Your task to perform on an android device: turn off improve location accuracy Image 0: 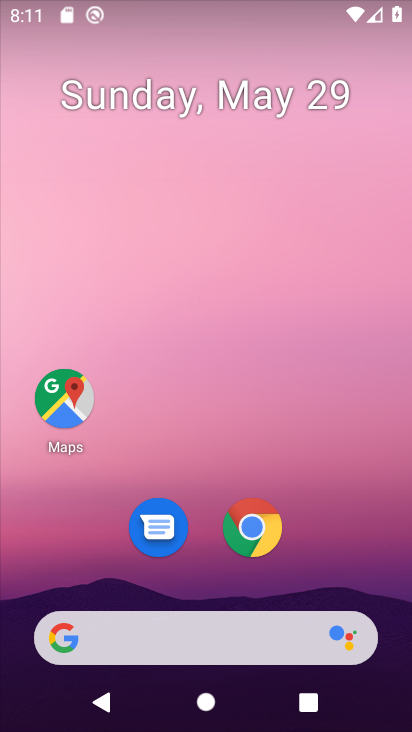
Step 0: drag from (212, 575) to (189, 25)
Your task to perform on an android device: turn off improve location accuracy Image 1: 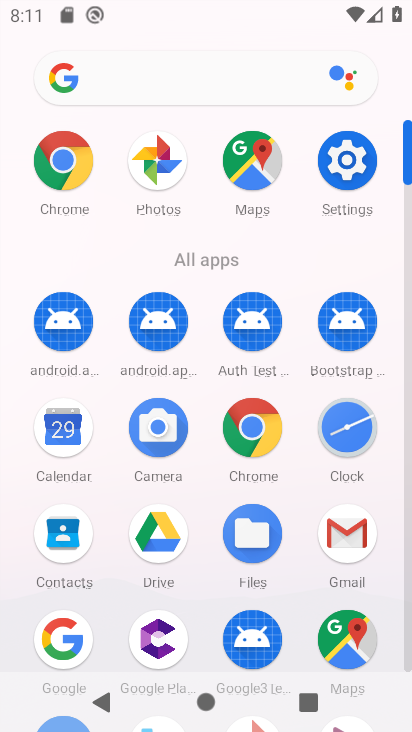
Step 1: click (342, 161)
Your task to perform on an android device: turn off improve location accuracy Image 2: 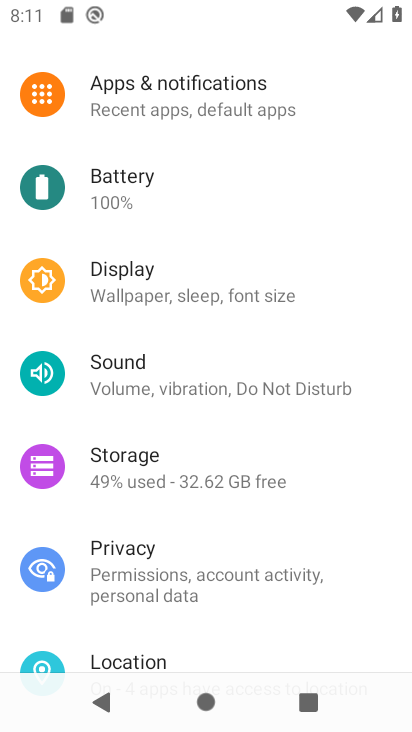
Step 2: click (184, 648)
Your task to perform on an android device: turn off improve location accuracy Image 3: 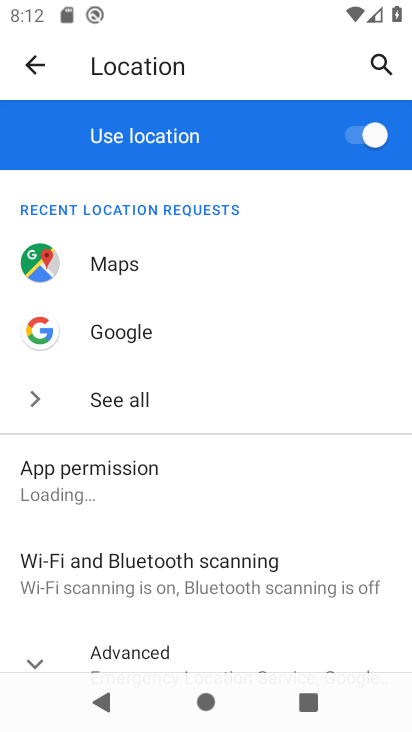
Step 3: click (63, 654)
Your task to perform on an android device: turn off improve location accuracy Image 4: 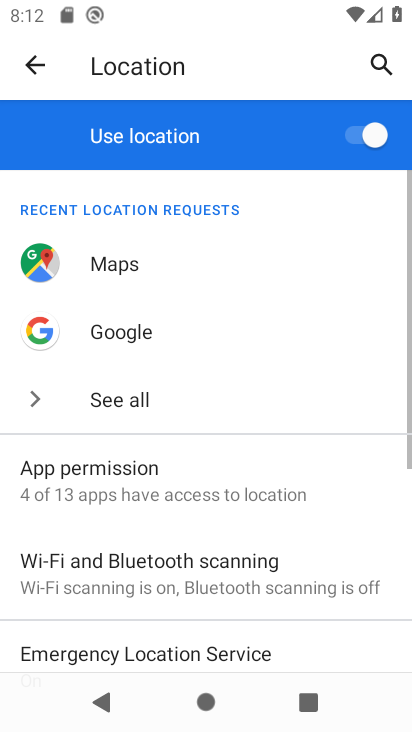
Step 4: drag from (158, 608) to (155, 106)
Your task to perform on an android device: turn off improve location accuracy Image 5: 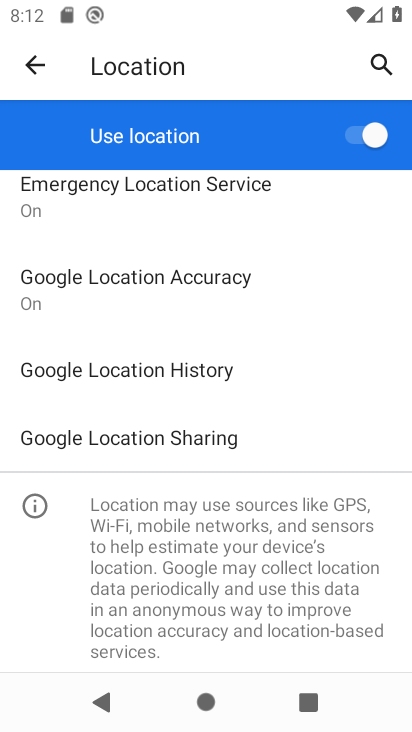
Step 5: click (177, 292)
Your task to perform on an android device: turn off improve location accuracy Image 6: 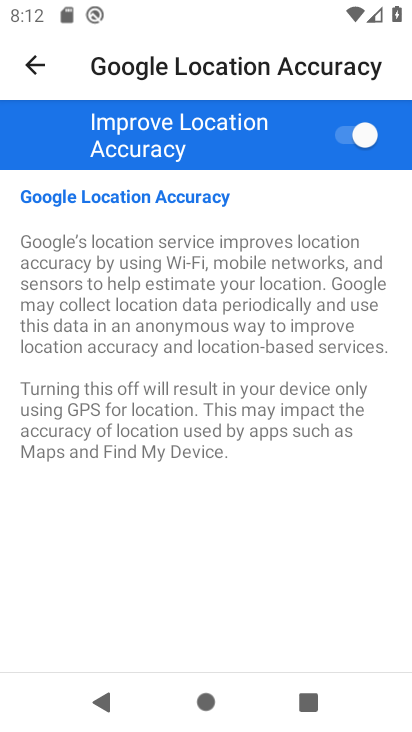
Step 6: click (353, 138)
Your task to perform on an android device: turn off improve location accuracy Image 7: 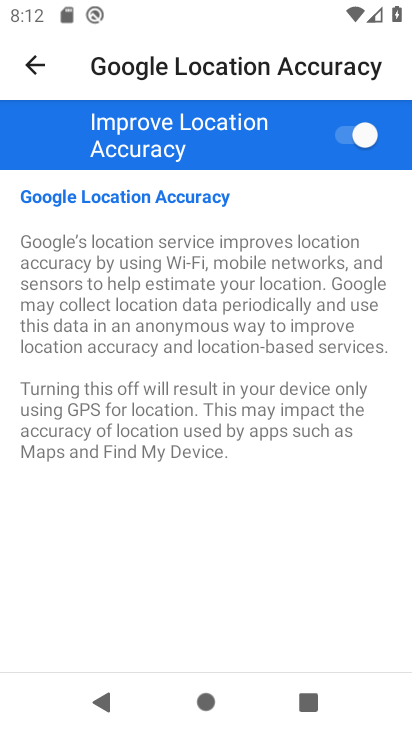
Step 7: task complete